Your task to perform on an android device: Go to Wikipedia Image 0: 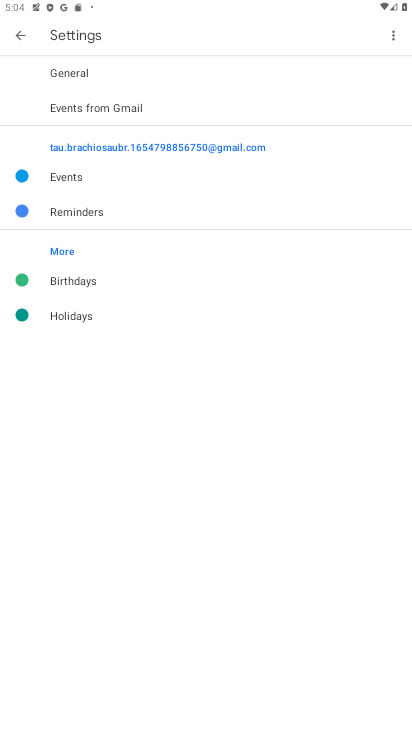
Step 0: press home button
Your task to perform on an android device: Go to Wikipedia Image 1: 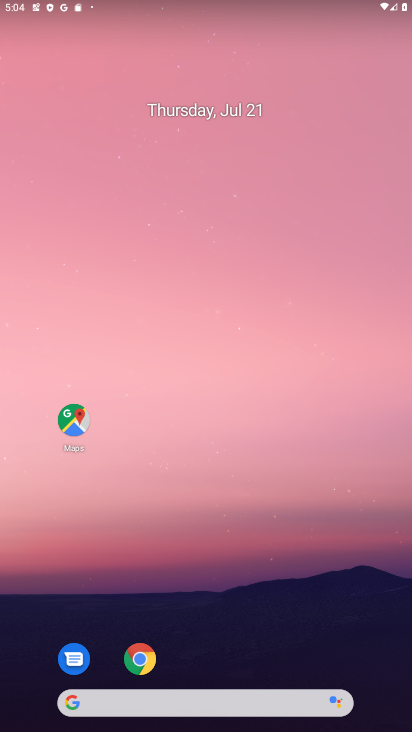
Step 1: click (147, 674)
Your task to perform on an android device: Go to Wikipedia Image 2: 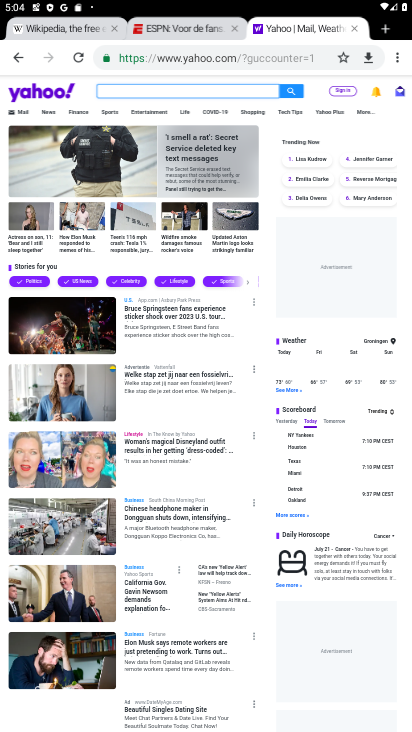
Step 2: click (398, 52)
Your task to perform on an android device: Go to Wikipedia Image 3: 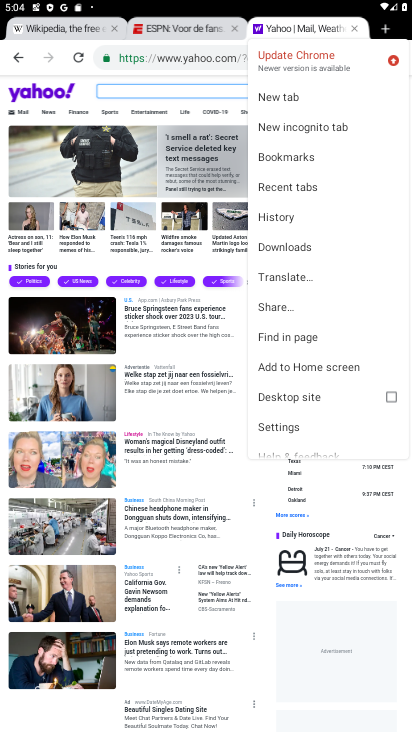
Step 3: click (272, 93)
Your task to perform on an android device: Go to Wikipedia Image 4: 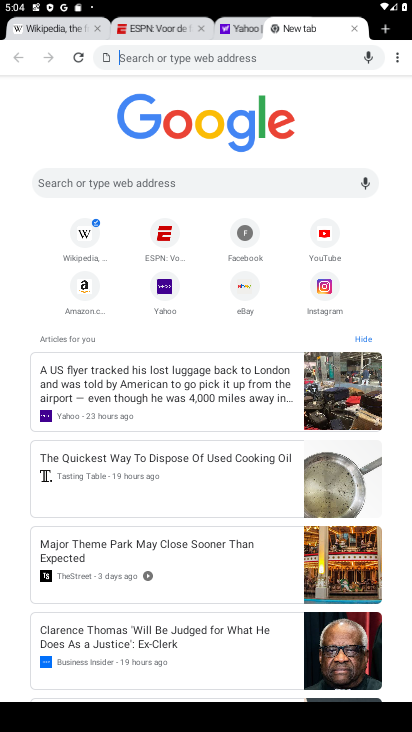
Step 4: click (86, 229)
Your task to perform on an android device: Go to Wikipedia Image 5: 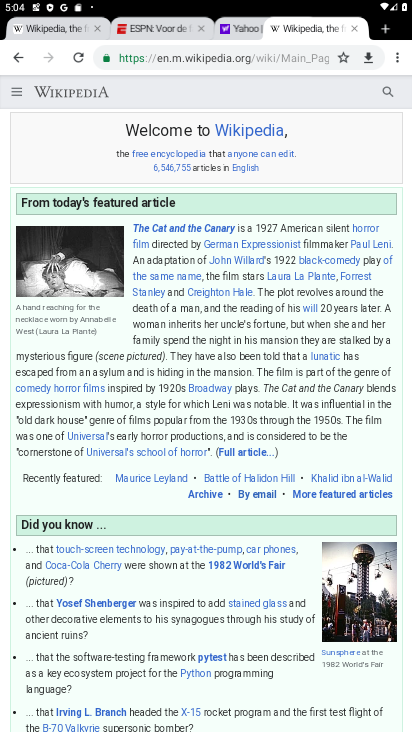
Step 5: task complete